Your task to perform on an android device: Open Google Chrome and open the bookmarks view Image 0: 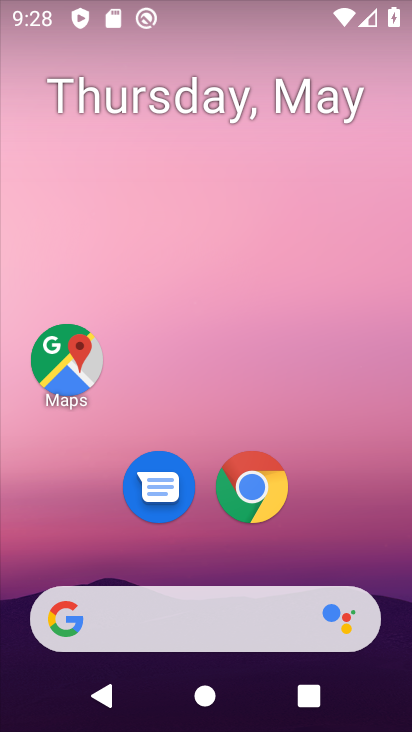
Step 0: click (257, 490)
Your task to perform on an android device: Open Google Chrome and open the bookmarks view Image 1: 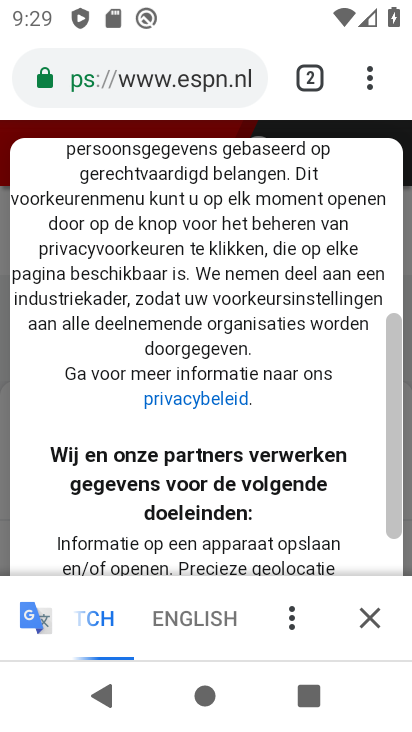
Step 1: task complete